Your task to perform on an android device: search for starred emails in the gmail app Image 0: 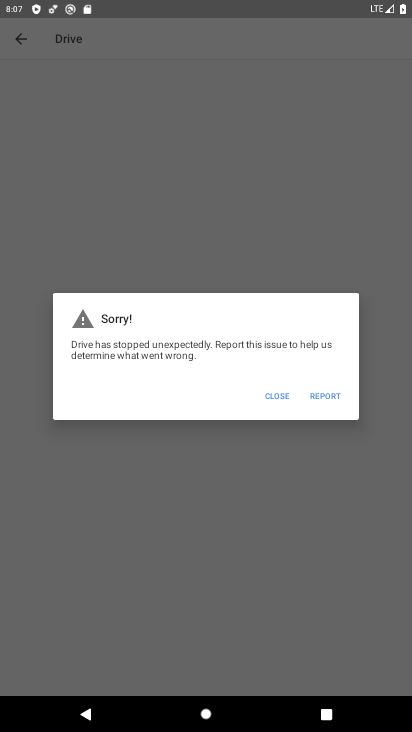
Step 0: press home button
Your task to perform on an android device: search for starred emails in the gmail app Image 1: 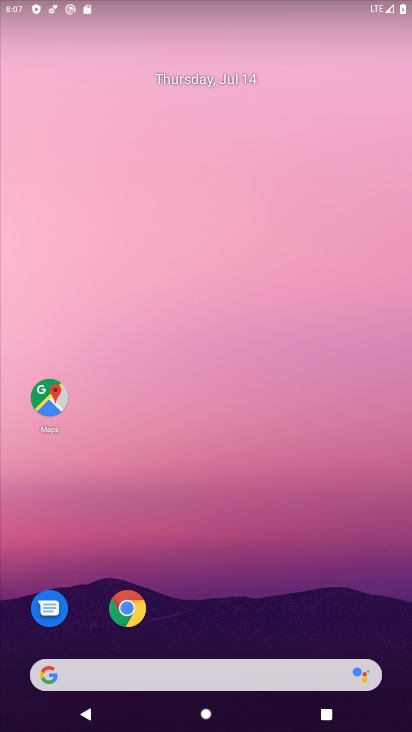
Step 1: drag from (203, 562) to (178, 44)
Your task to perform on an android device: search for starred emails in the gmail app Image 2: 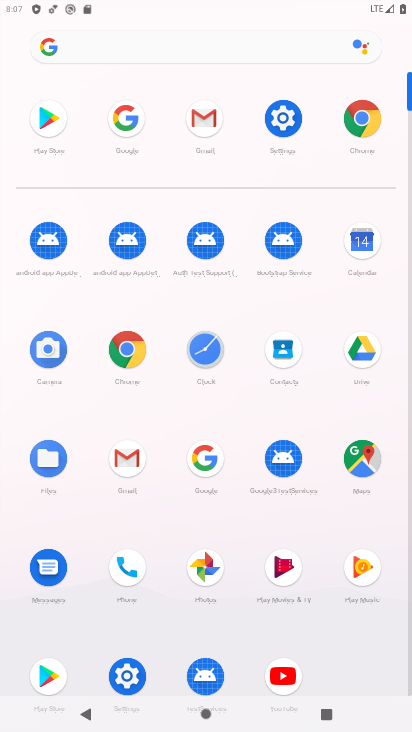
Step 2: click (130, 456)
Your task to perform on an android device: search for starred emails in the gmail app Image 3: 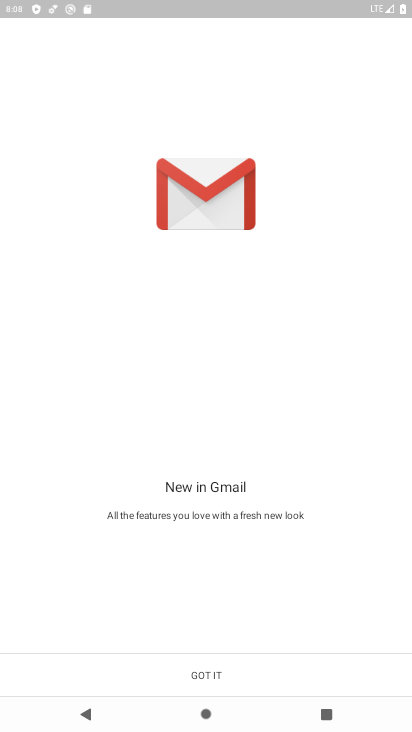
Step 3: click (213, 663)
Your task to perform on an android device: search for starred emails in the gmail app Image 4: 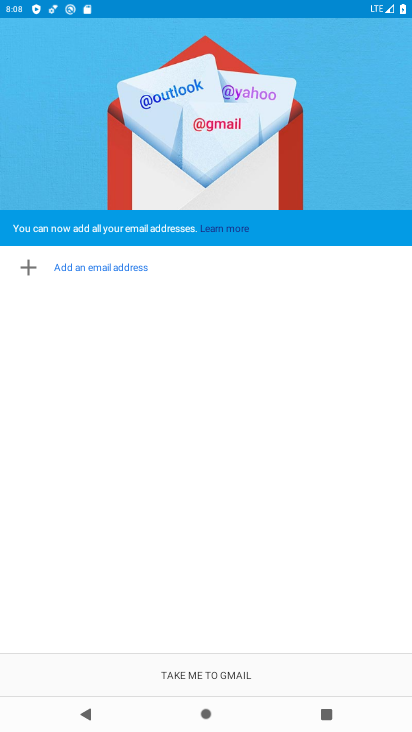
Step 4: click (213, 675)
Your task to perform on an android device: search for starred emails in the gmail app Image 5: 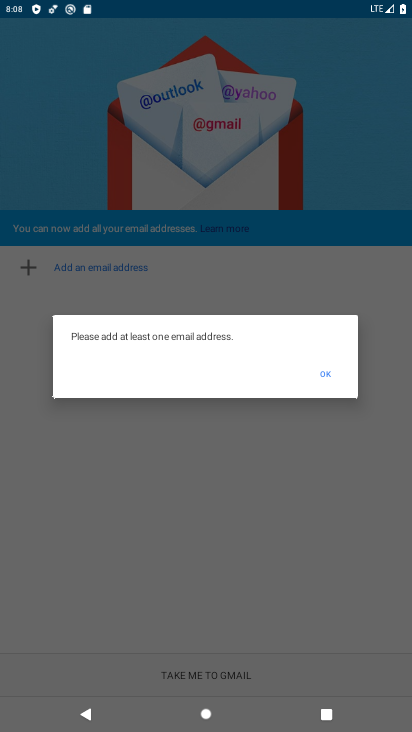
Step 5: click (329, 375)
Your task to perform on an android device: search for starred emails in the gmail app Image 6: 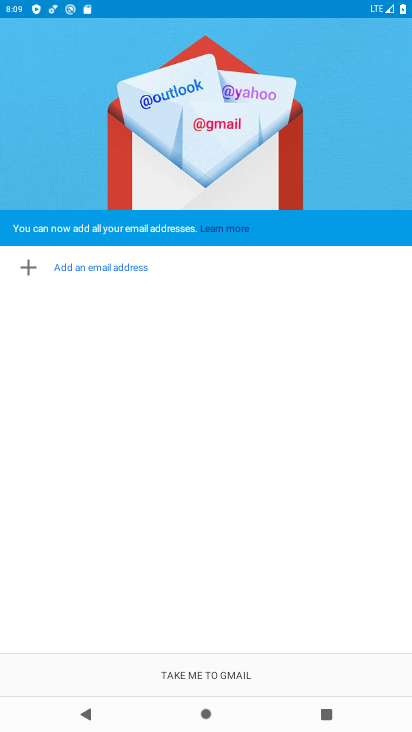
Step 6: click (207, 672)
Your task to perform on an android device: search for starred emails in the gmail app Image 7: 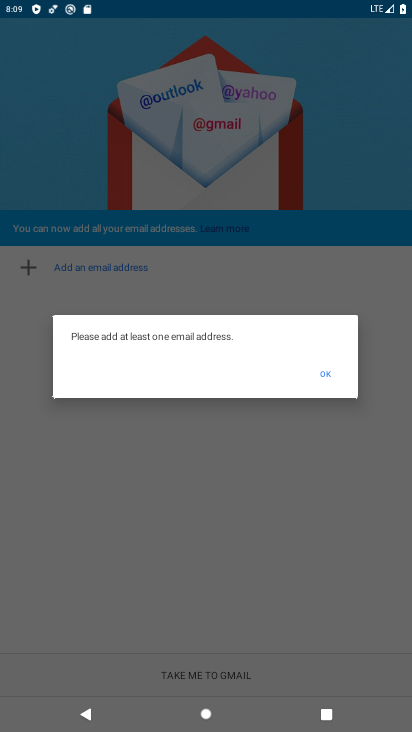
Step 7: click (324, 374)
Your task to perform on an android device: search for starred emails in the gmail app Image 8: 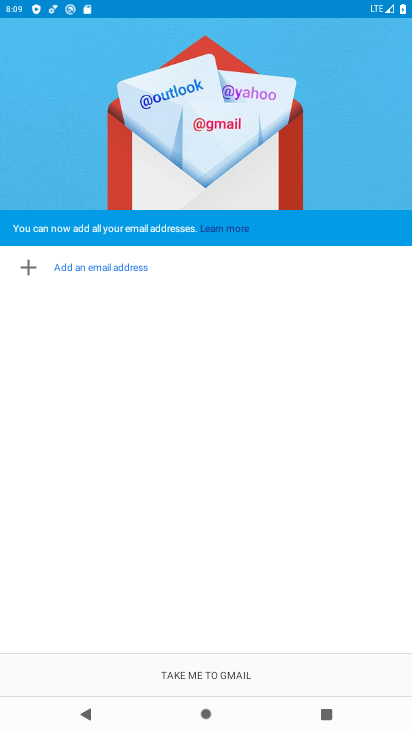
Step 8: click (207, 675)
Your task to perform on an android device: search for starred emails in the gmail app Image 9: 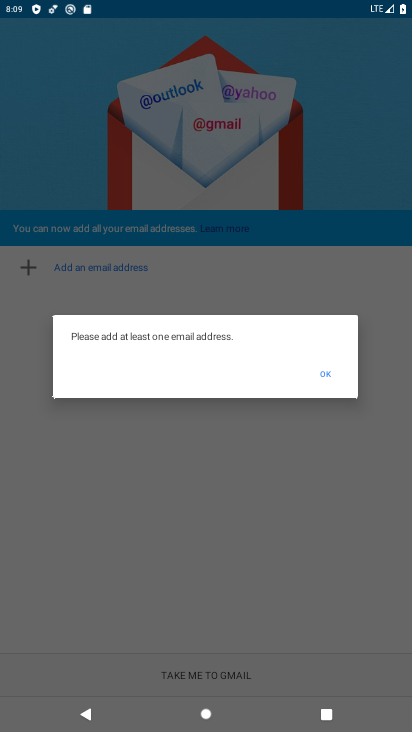
Step 9: click (327, 372)
Your task to perform on an android device: search for starred emails in the gmail app Image 10: 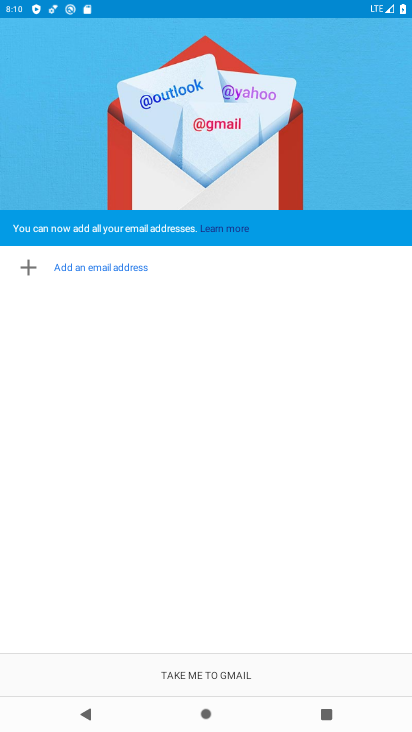
Step 10: click (199, 672)
Your task to perform on an android device: search for starred emails in the gmail app Image 11: 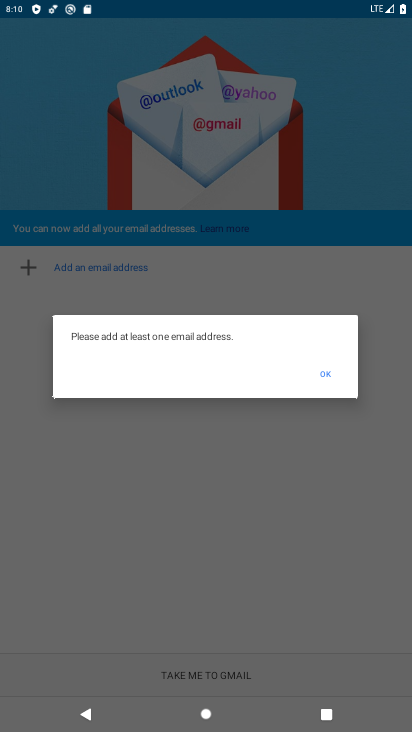
Step 11: task complete